Your task to perform on an android device: turn off smart reply in the gmail app Image 0: 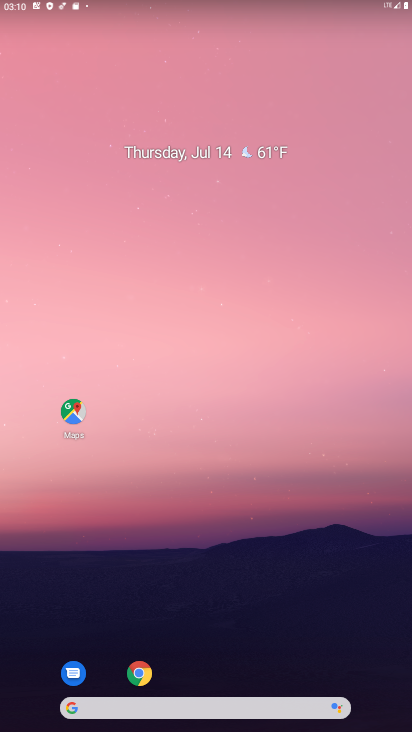
Step 0: drag from (213, 669) to (249, 66)
Your task to perform on an android device: turn off smart reply in the gmail app Image 1: 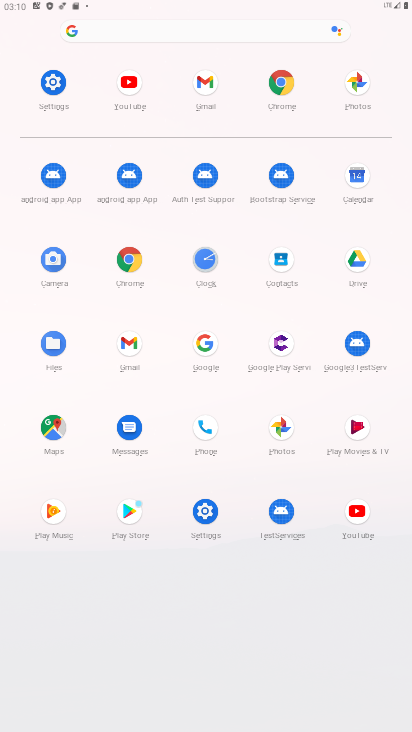
Step 1: click (136, 333)
Your task to perform on an android device: turn off smart reply in the gmail app Image 2: 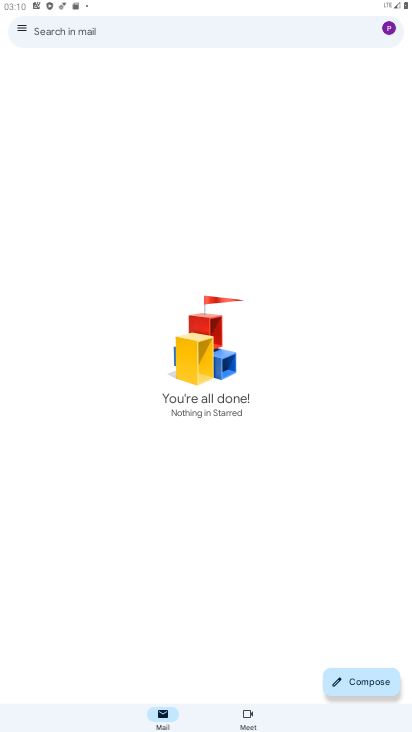
Step 2: click (25, 31)
Your task to perform on an android device: turn off smart reply in the gmail app Image 3: 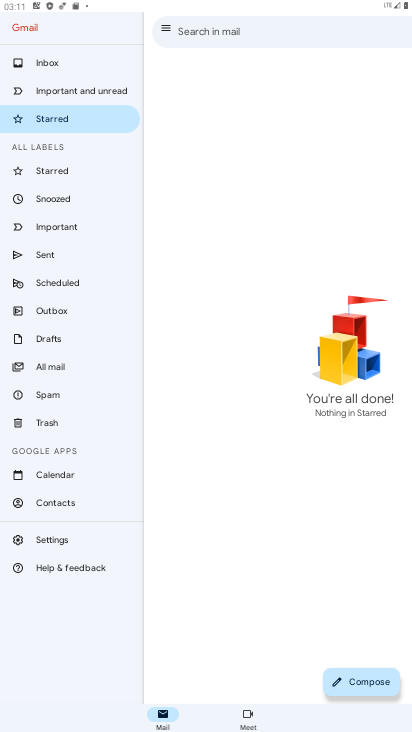
Step 3: click (30, 535)
Your task to perform on an android device: turn off smart reply in the gmail app Image 4: 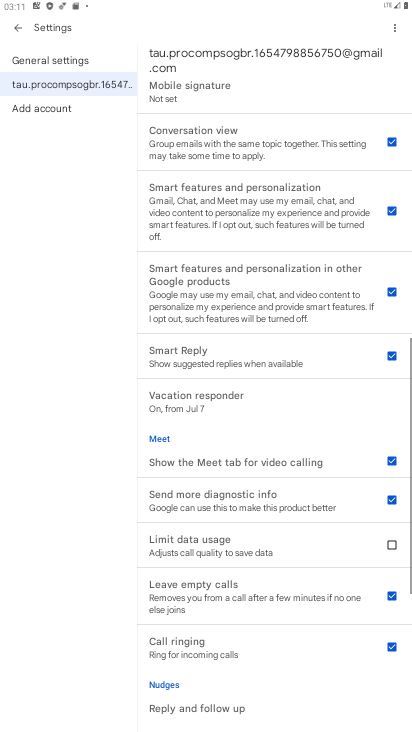
Step 4: task complete